Your task to perform on an android device: Open location settings Image 0: 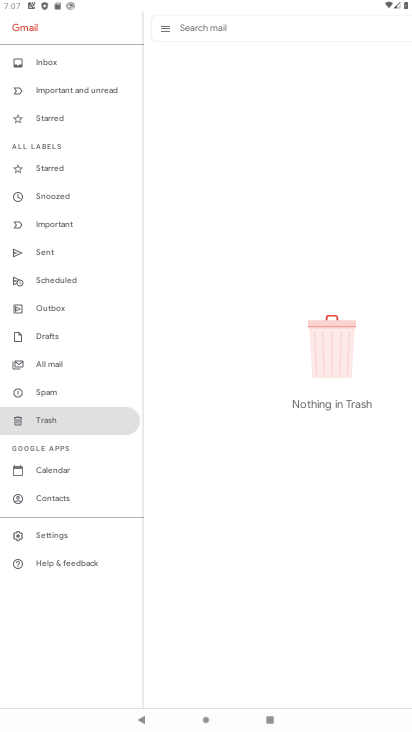
Step 0: press home button
Your task to perform on an android device: Open location settings Image 1: 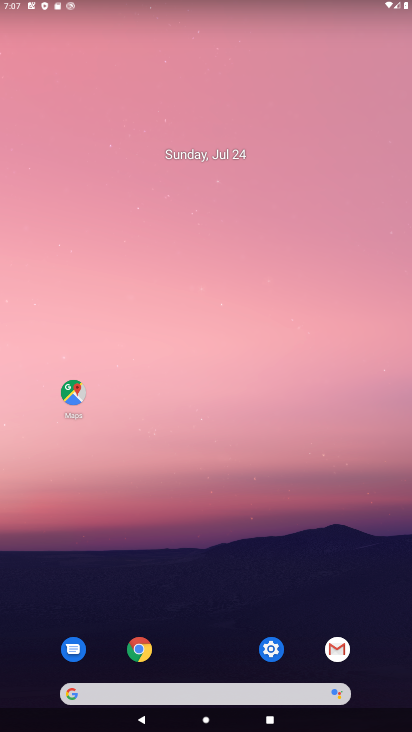
Step 1: click (273, 648)
Your task to perform on an android device: Open location settings Image 2: 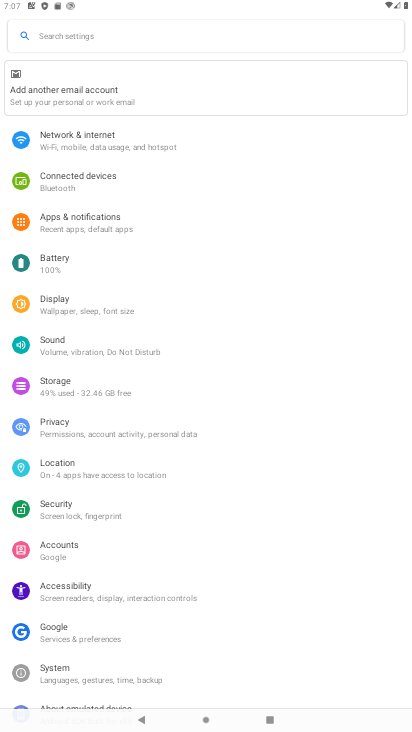
Step 2: click (77, 473)
Your task to perform on an android device: Open location settings Image 3: 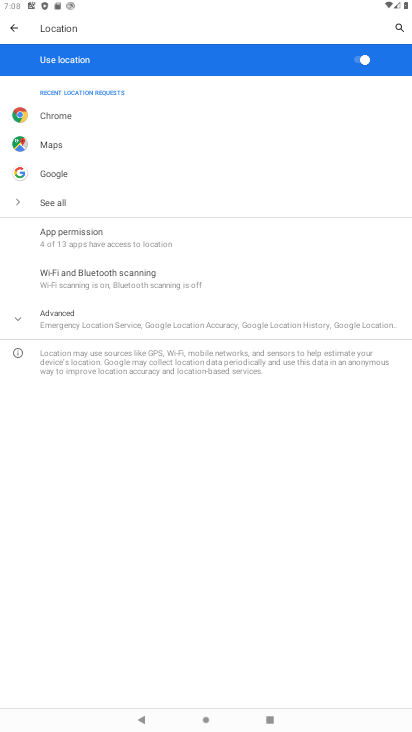
Step 3: task complete